Your task to perform on an android device: turn on data saver in the chrome app Image 0: 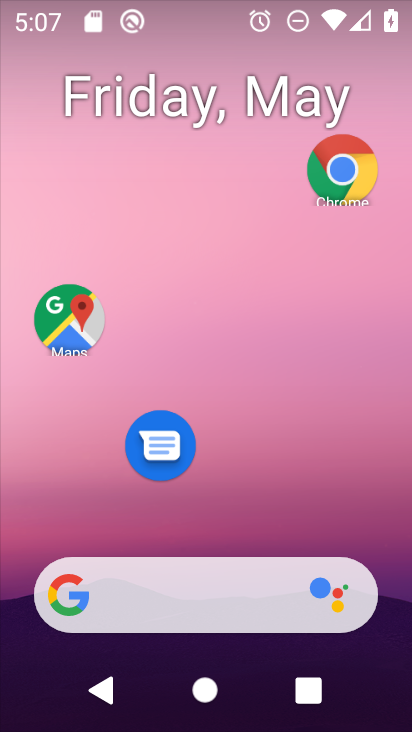
Step 0: drag from (239, 539) to (246, 82)
Your task to perform on an android device: turn on data saver in the chrome app Image 1: 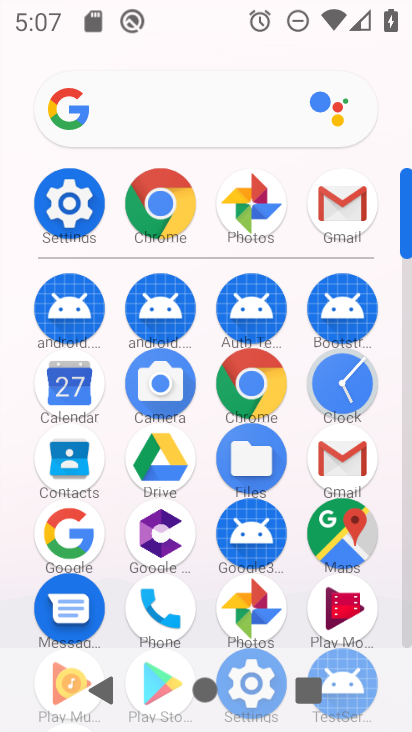
Step 1: click (168, 208)
Your task to perform on an android device: turn on data saver in the chrome app Image 2: 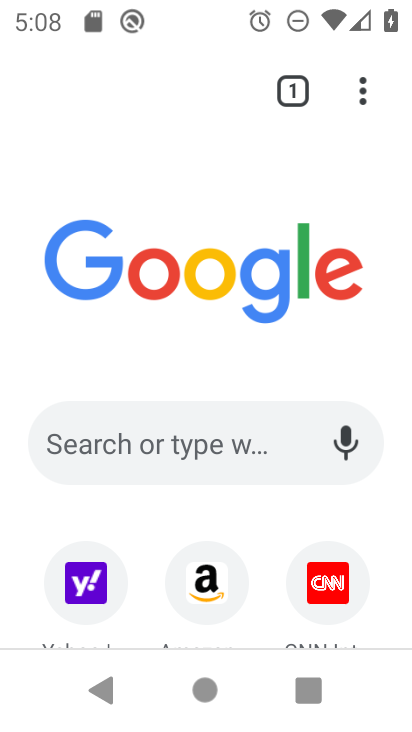
Step 2: click (362, 112)
Your task to perform on an android device: turn on data saver in the chrome app Image 3: 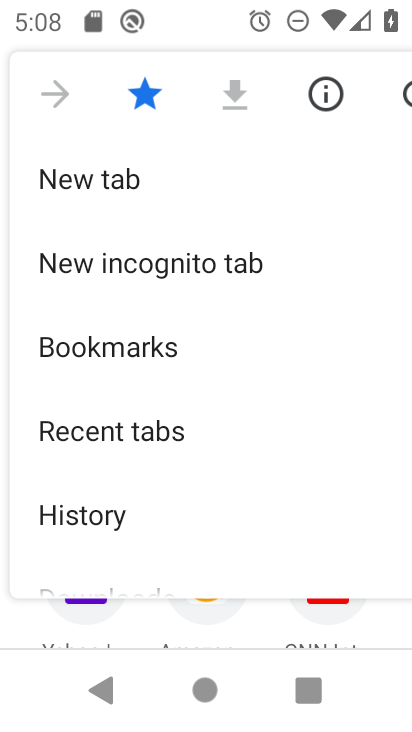
Step 3: drag from (204, 522) to (204, 181)
Your task to perform on an android device: turn on data saver in the chrome app Image 4: 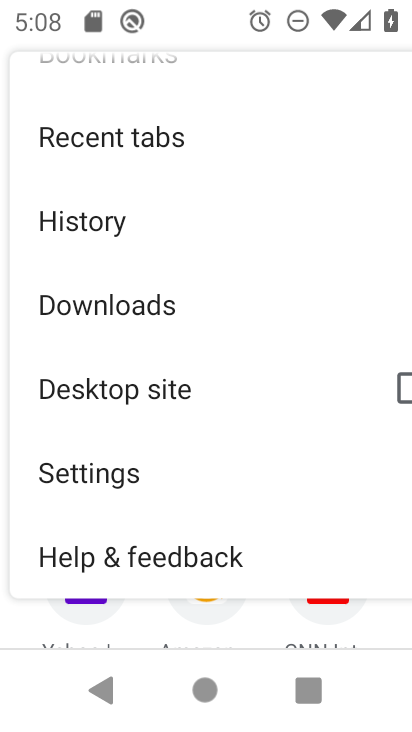
Step 4: click (131, 478)
Your task to perform on an android device: turn on data saver in the chrome app Image 5: 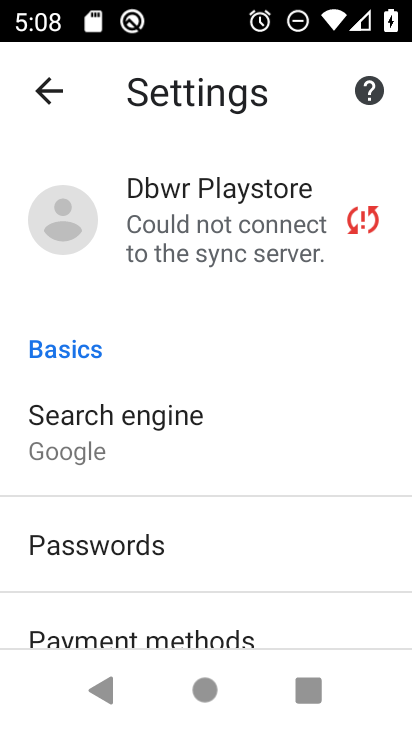
Step 5: drag from (179, 581) to (274, 54)
Your task to perform on an android device: turn on data saver in the chrome app Image 6: 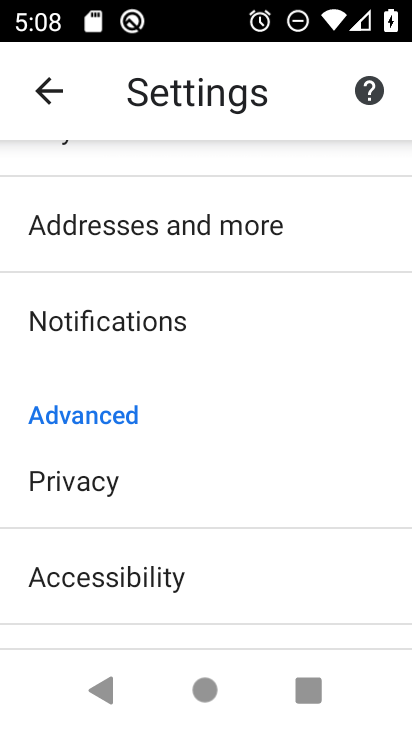
Step 6: drag from (162, 585) to (189, 263)
Your task to perform on an android device: turn on data saver in the chrome app Image 7: 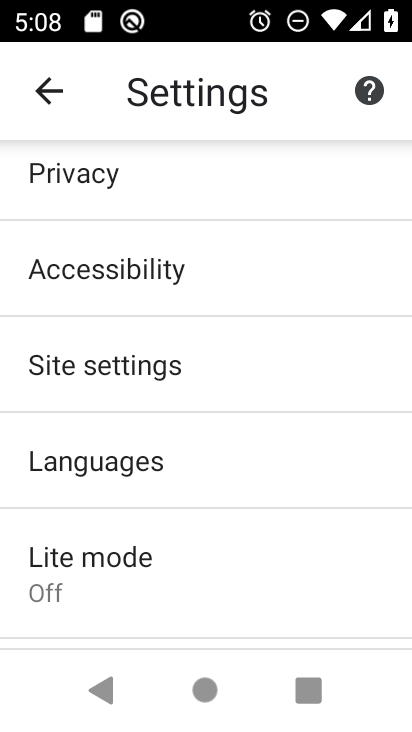
Step 7: click (98, 574)
Your task to perform on an android device: turn on data saver in the chrome app Image 8: 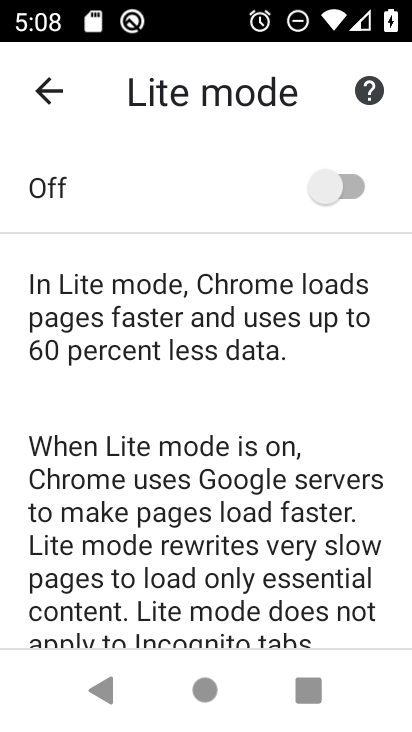
Step 8: click (349, 205)
Your task to perform on an android device: turn on data saver in the chrome app Image 9: 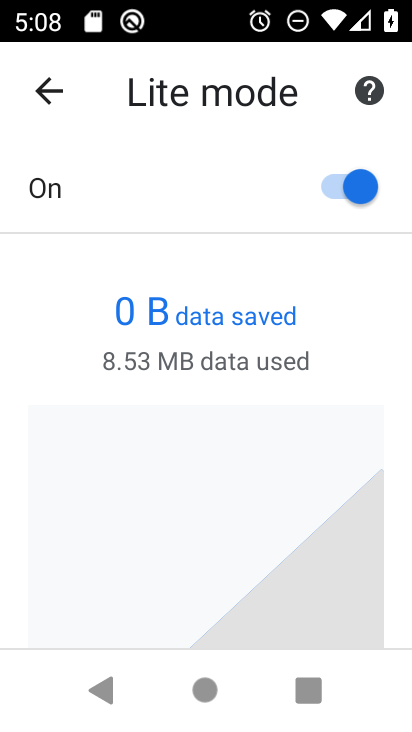
Step 9: task complete